Your task to perform on an android device: Open battery settings Image 0: 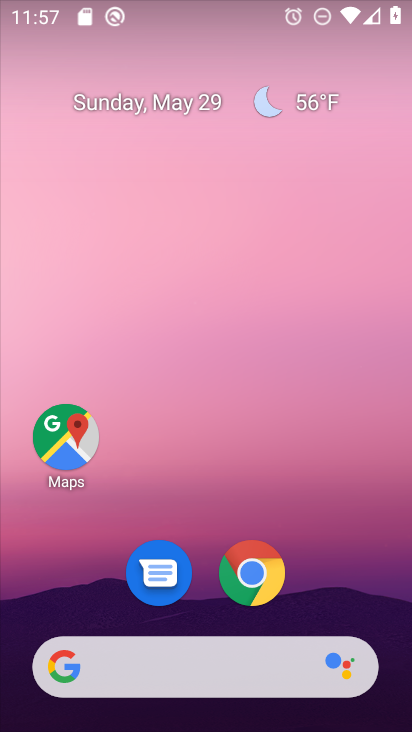
Step 0: drag from (280, 632) to (328, 103)
Your task to perform on an android device: Open battery settings Image 1: 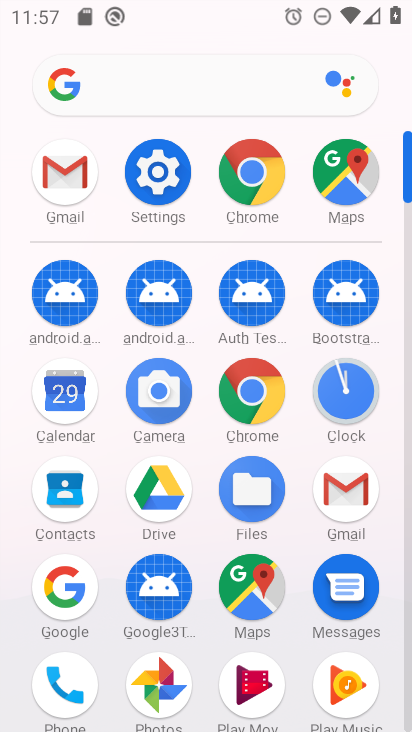
Step 1: click (145, 182)
Your task to perform on an android device: Open battery settings Image 2: 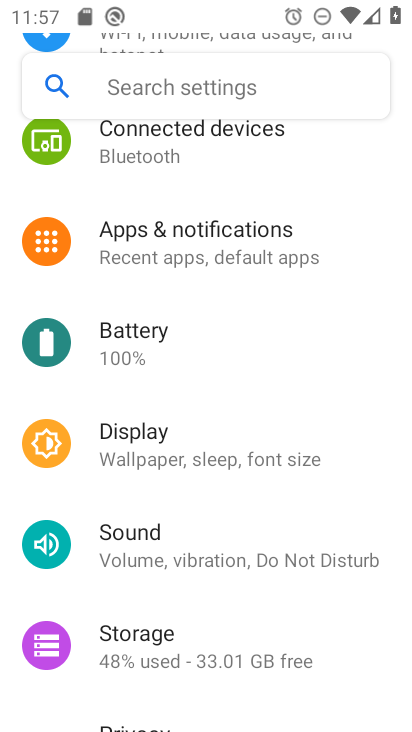
Step 2: click (196, 337)
Your task to perform on an android device: Open battery settings Image 3: 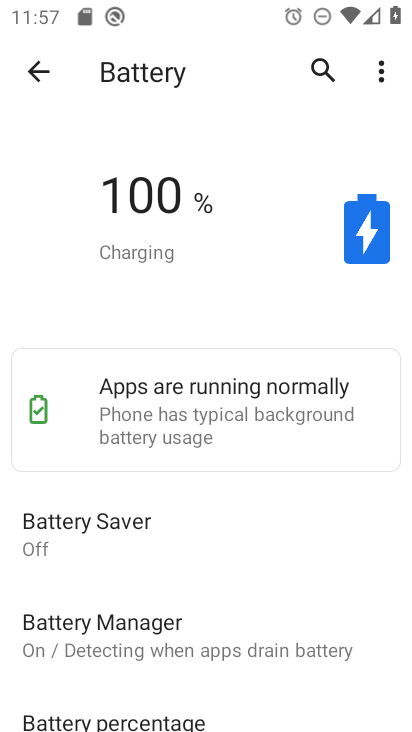
Step 3: task complete